Your task to perform on an android device: delete the emails in spam in the gmail app Image 0: 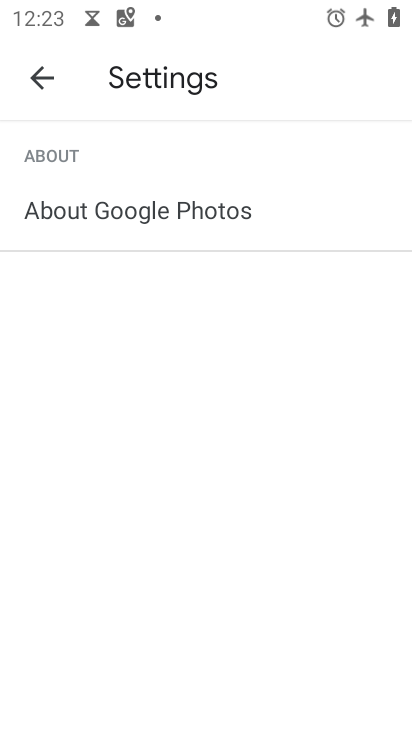
Step 0: press home button
Your task to perform on an android device: delete the emails in spam in the gmail app Image 1: 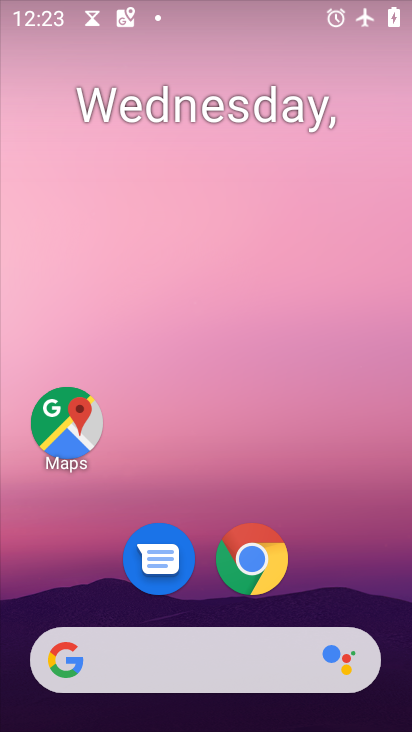
Step 1: drag from (381, 573) to (351, 51)
Your task to perform on an android device: delete the emails in spam in the gmail app Image 2: 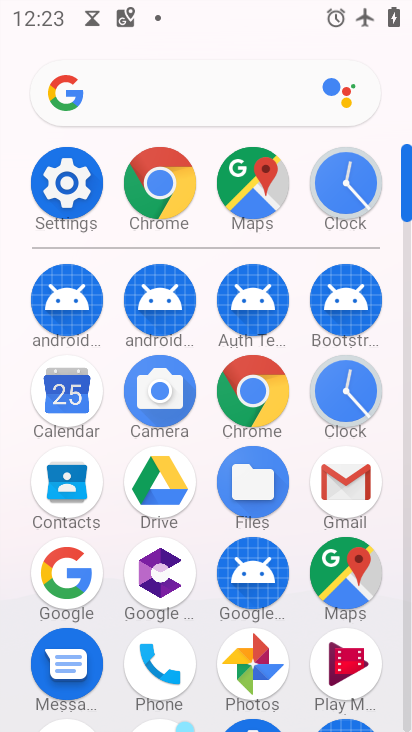
Step 2: click (371, 481)
Your task to perform on an android device: delete the emails in spam in the gmail app Image 3: 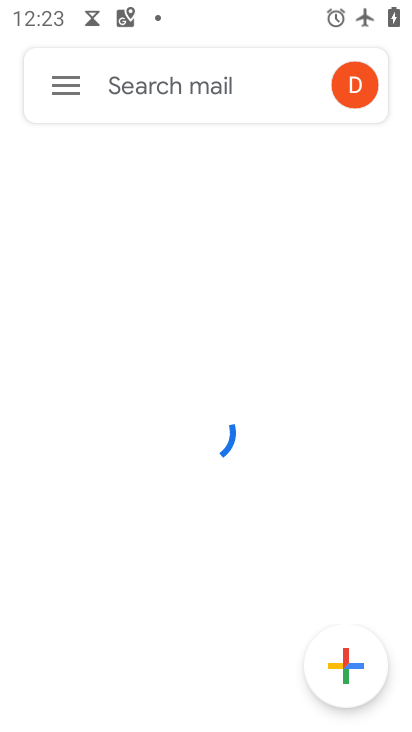
Step 3: click (74, 93)
Your task to perform on an android device: delete the emails in spam in the gmail app Image 4: 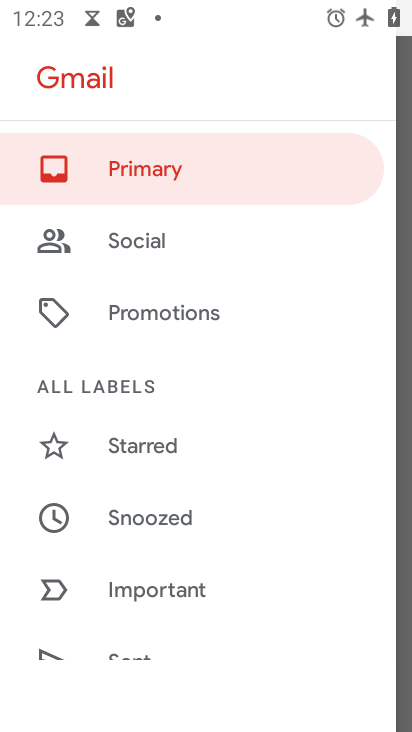
Step 4: drag from (231, 576) to (273, 46)
Your task to perform on an android device: delete the emails in spam in the gmail app Image 5: 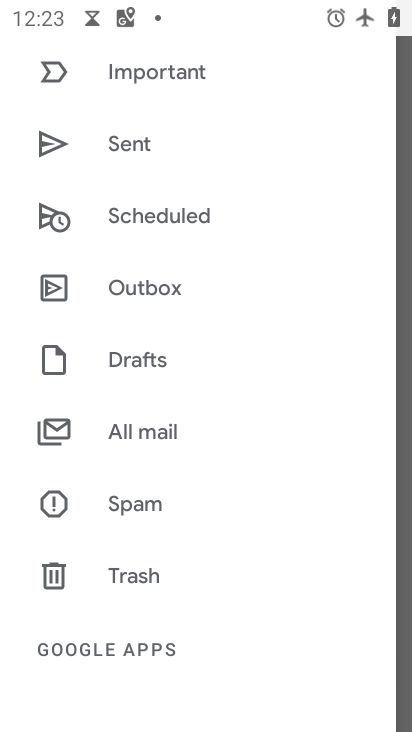
Step 5: drag from (217, 567) to (157, 113)
Your task to perform on an android device: delete the emails in spam in the gmail app Image 6: 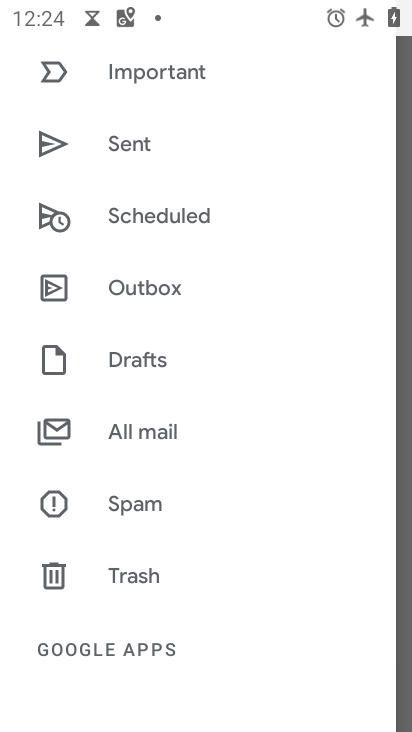
Step 6: click (127, 498)
Your task to perform on an android device: delete the emails in spam in the gmail app Image 7: 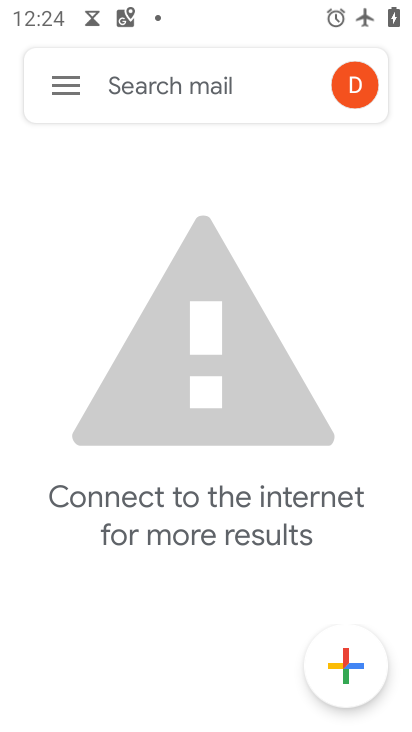
Step 7: task complete